Your task to perform on an android device: Open battery settings Image 0: 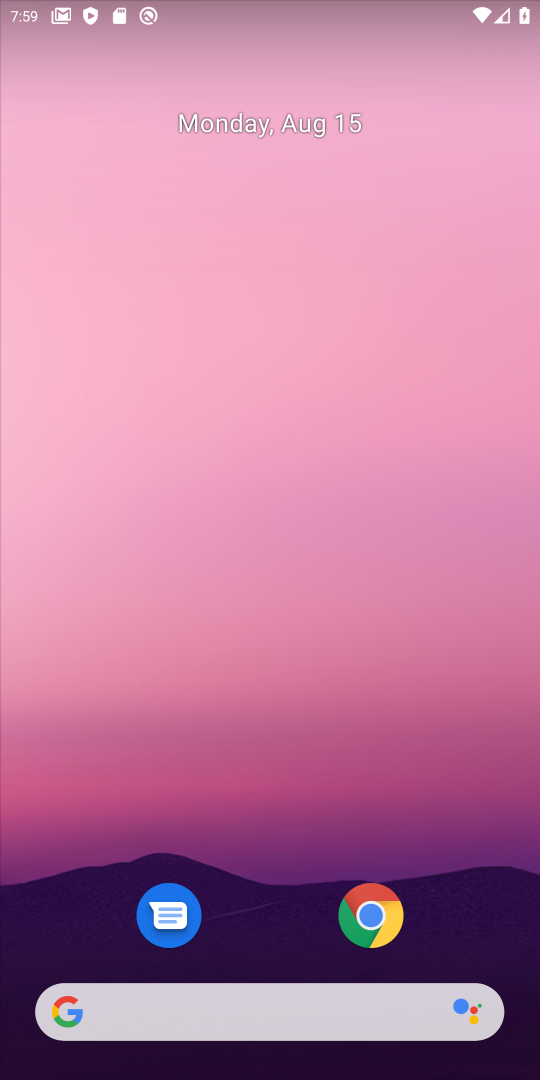
Step 0: drag from (277, 848) to (318, 0)
Your task to perform on an android device: Open battery settings Image 1: 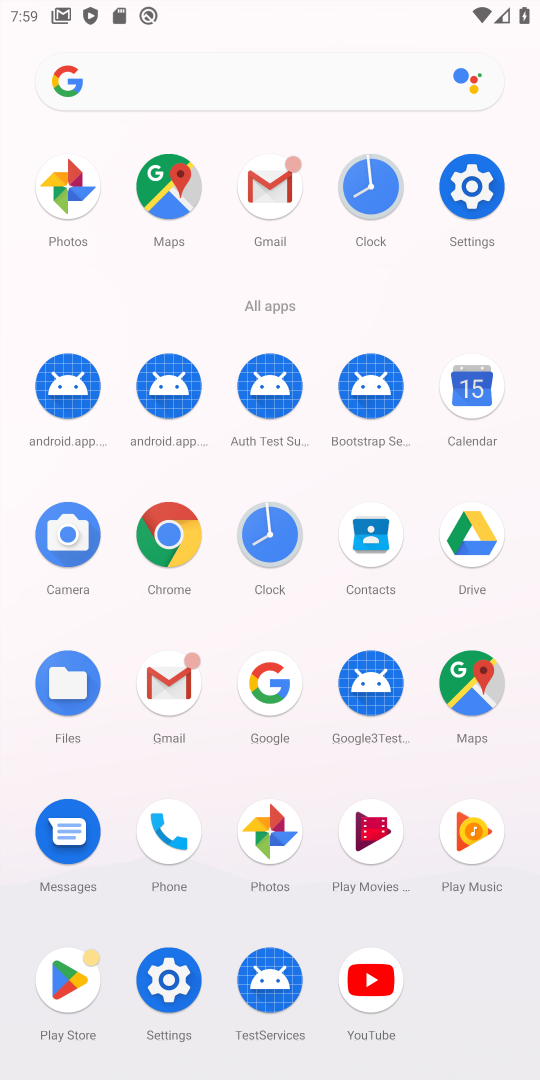
Step 1: click (476, 178)
Your task to perform on an android device: Open battery settings Image 2: 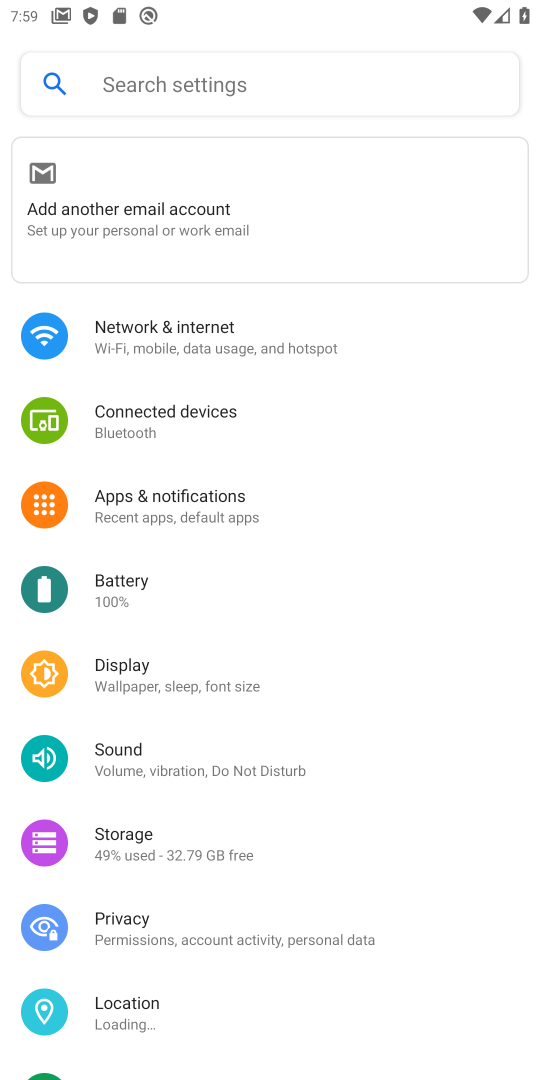
Step 2: click (131, 590)
Your task to perform on an android device: Open battery settings Image 3: 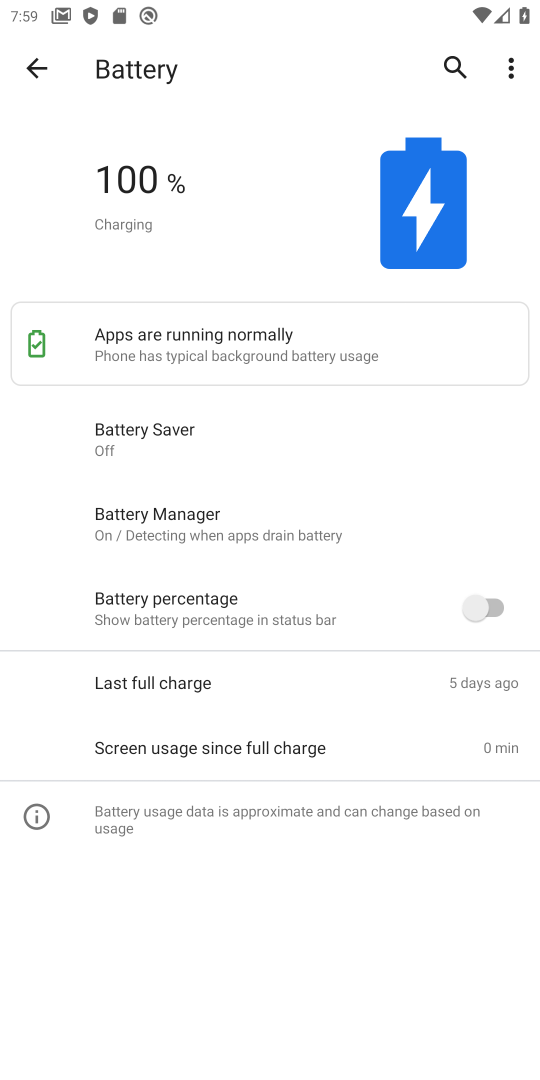
Step 3: task complete